Your task to perform on an android device: manage bookmarks in the chrome app Image 0: 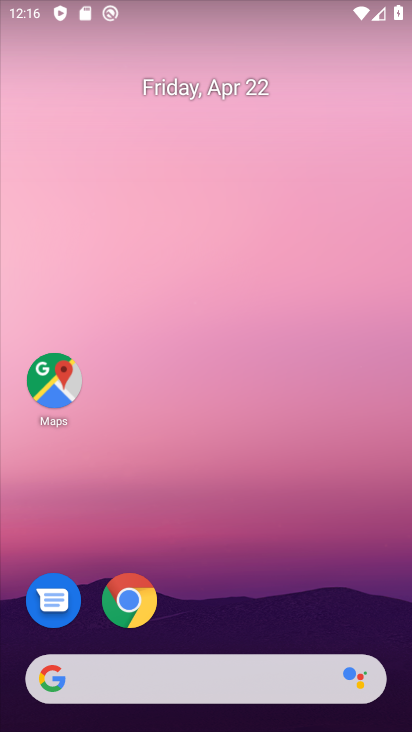
Step 0: click (120, 609)
Your task to perform on an android device: manage bookmarks in the chrome app Image 1: 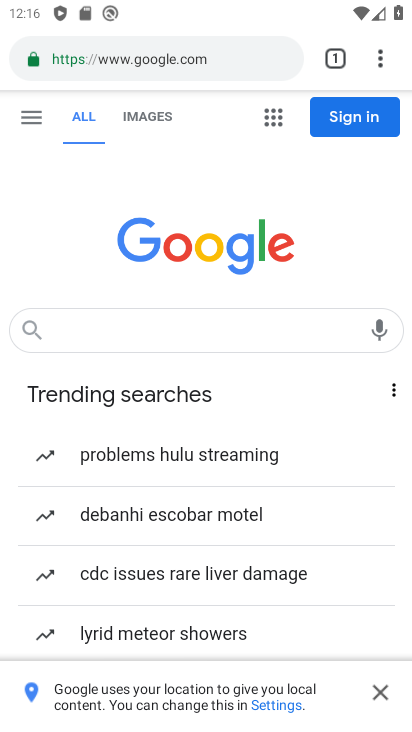
Step 1: click (382, 61)
Your task to perform on an android device: manage bookmarks in the chrome app Image 2: 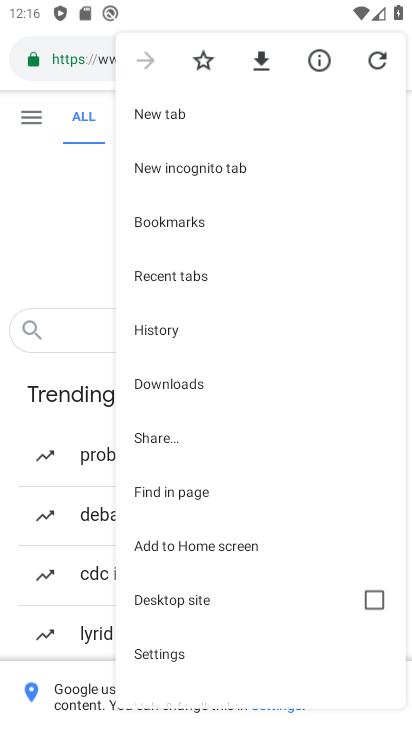
Step 2: click (171, 215)
Your task to perform on an android device: manage bookmarks in the chrome app Image 3: 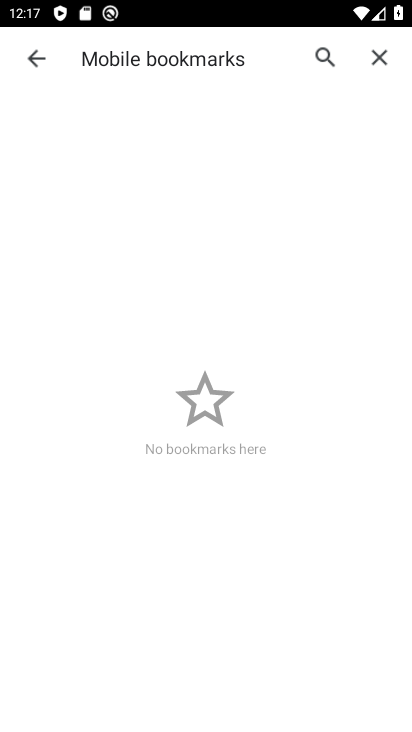
Step 3: task complete